Your task to perform on an android device: change the clock display to show seconds Image 0: 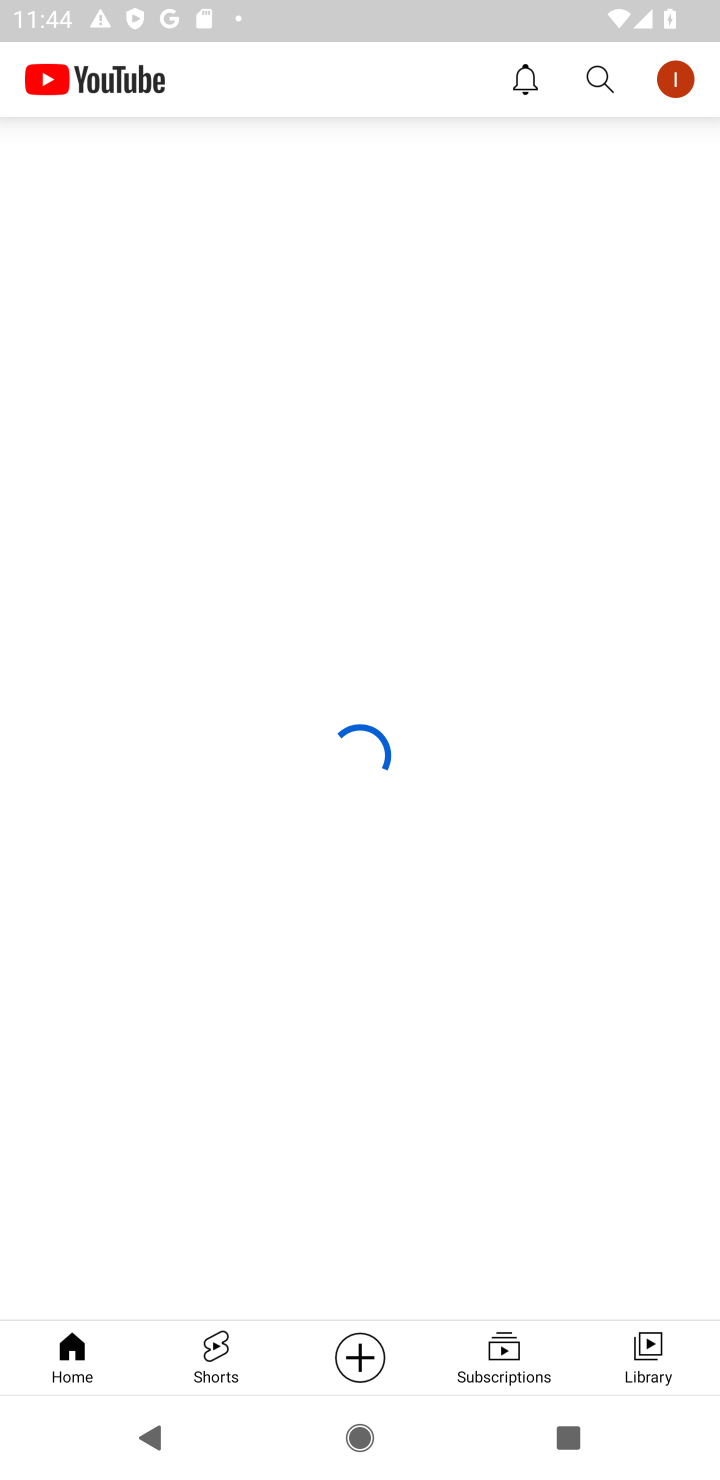
Step 0: press home button
Your task to perform on an android device: change the clock display to show seconds Image 1: 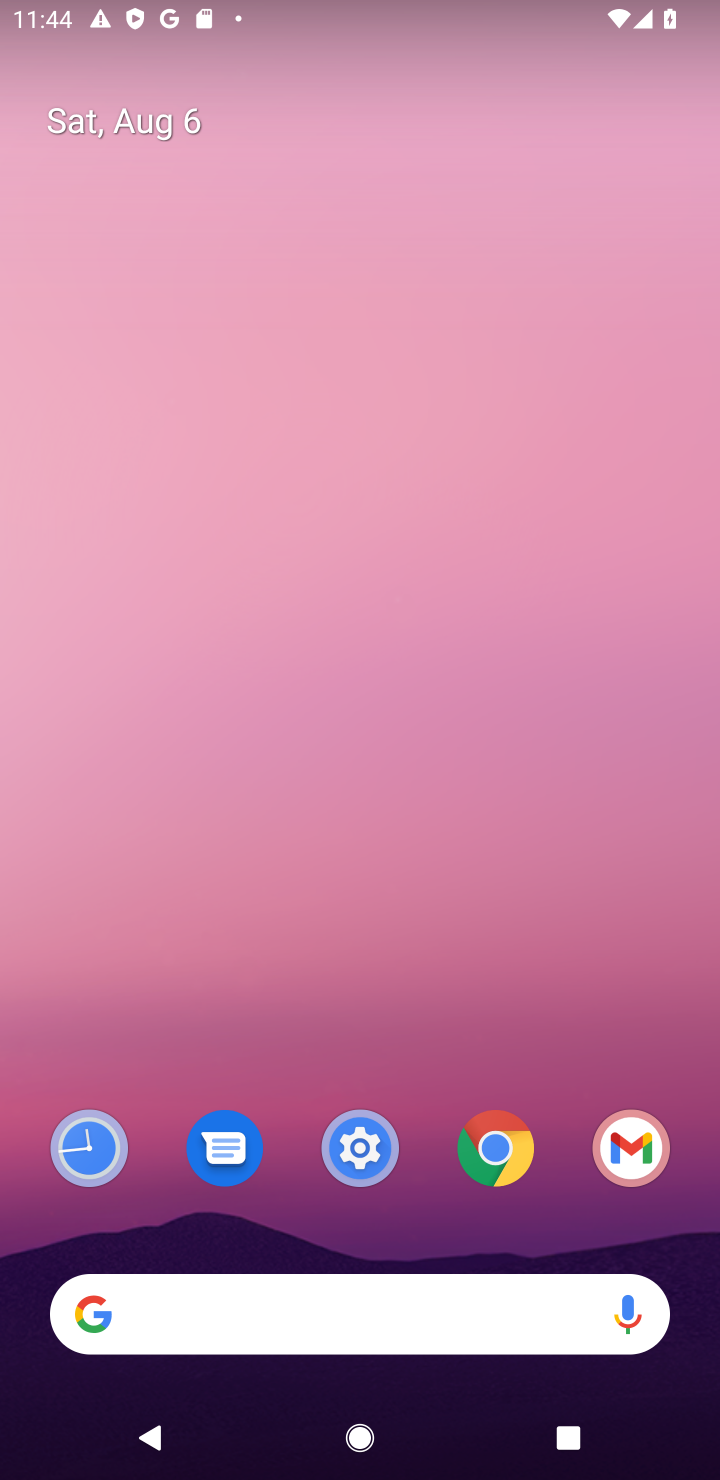
Step 1: click (90, 1156)
Your task to perform on an android device: change the clock display to show seconds Image 2: 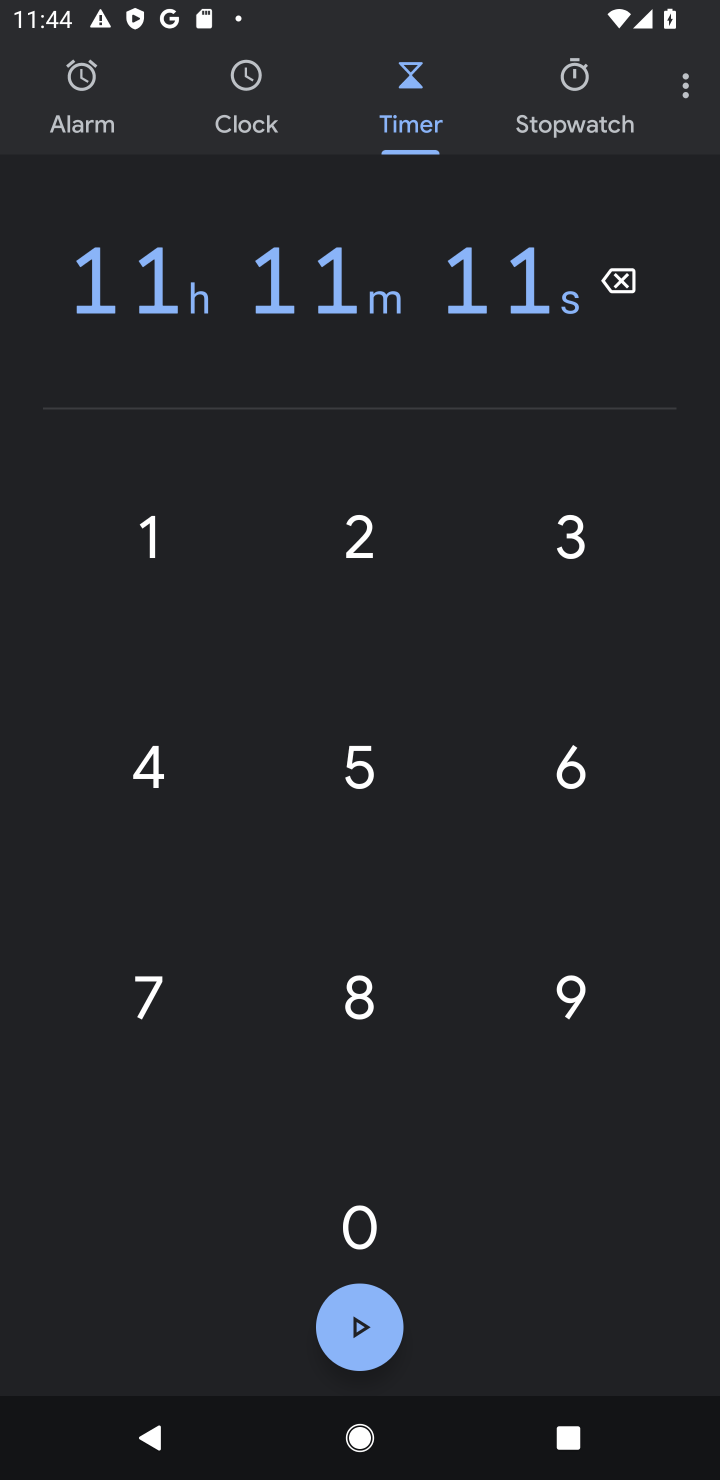
Step 2: click (678, 95)
Your task to perform on an android device: change the clock display to show seconds Image 3: 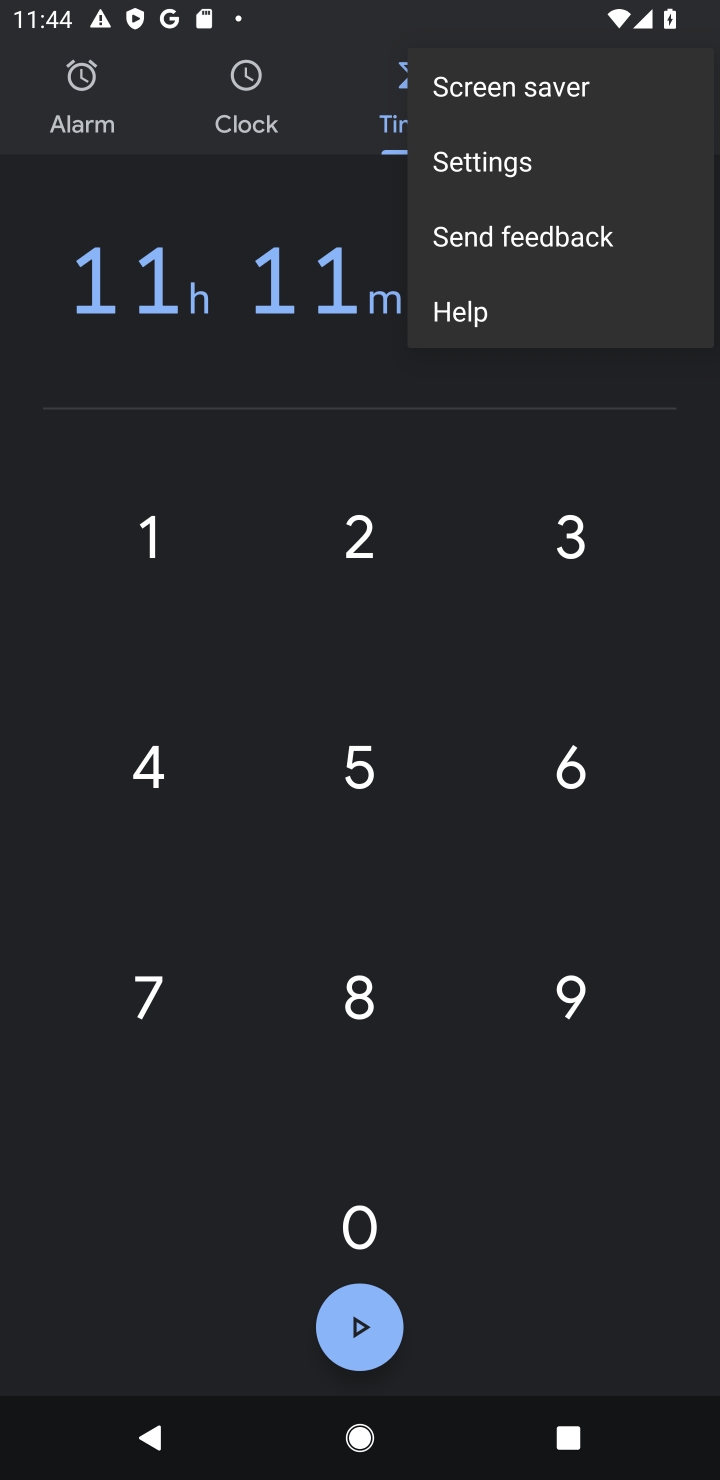
Step 3: click (501, 166)
Your task to perform on an android device: change the clock display to show seconds Image 4: 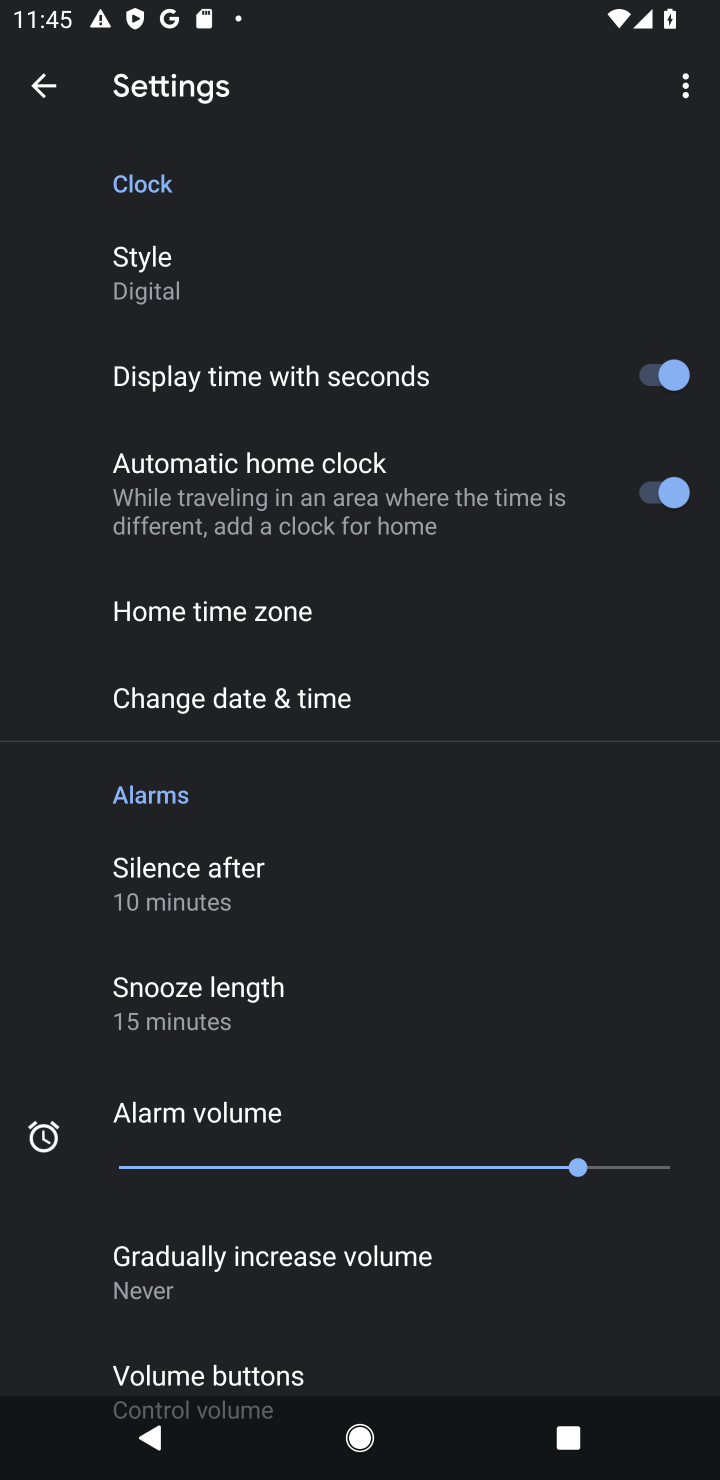
Step 4: task complete